Your task to perform on an android device: open sync settings in chrome Image 0: 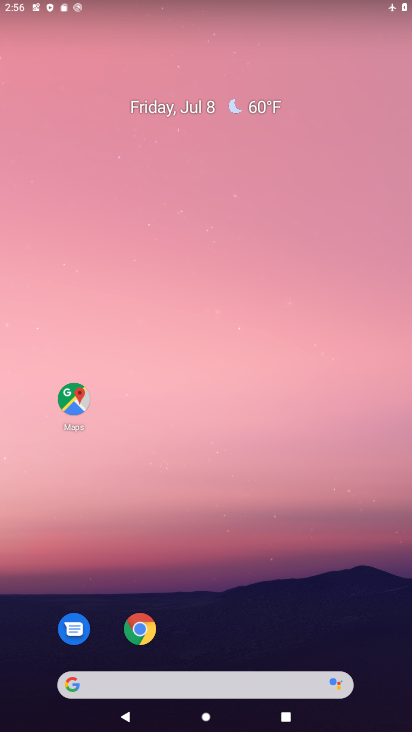
Step 0: click (140, 632)
Your task to perform on an android device: open sync settings in chrome Image 1: 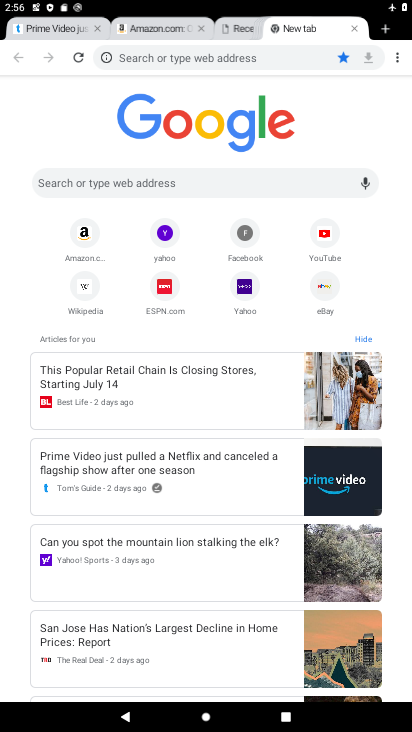
Step 1: click (398, 58)
Your task to perform on an android device: open sync settings in chrome Image 2: 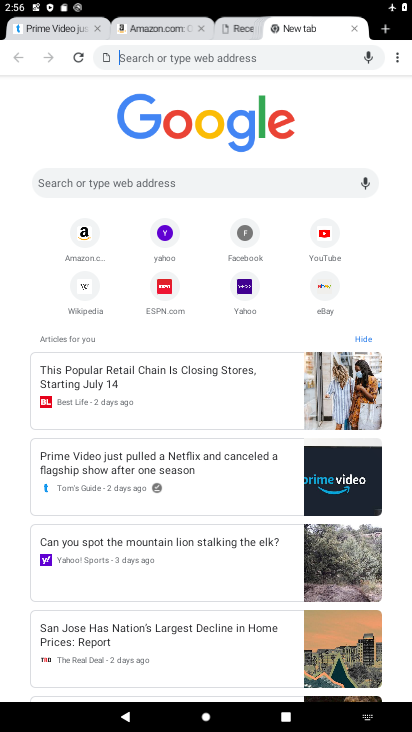
Step 2: drag from (398, 58) to (287, 259)
Your task to perform on an android device: open sync settings in chrome Image 3: 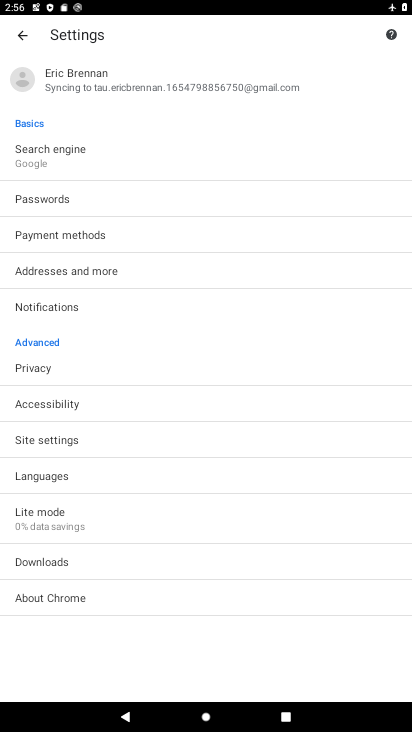
Step 3: click (123, 83)
Your task to perform on an android device: open sync settings in chrome Image 4: 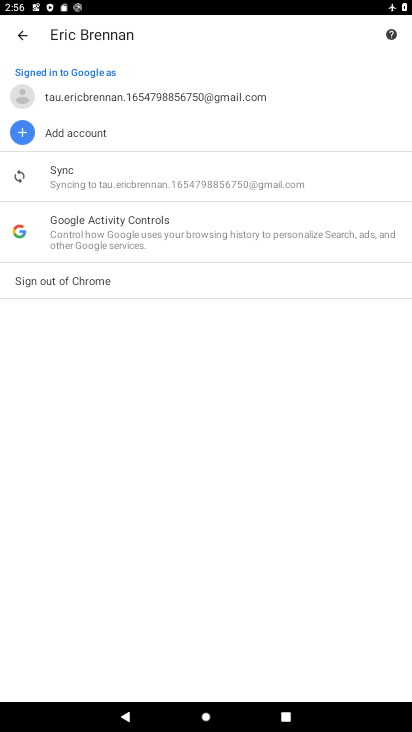
Step 4: click (111, 192)
Your task to perform on an android device: open sync settings in chrome Image 5: 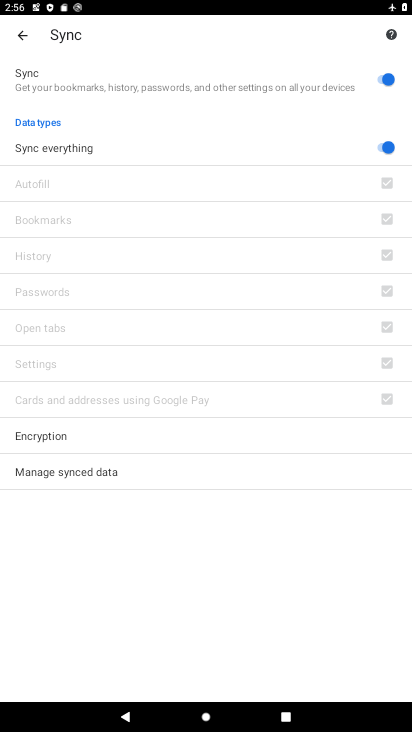
Step 5: task complete